Your task to perform on an android device: Go to settings Image 0: 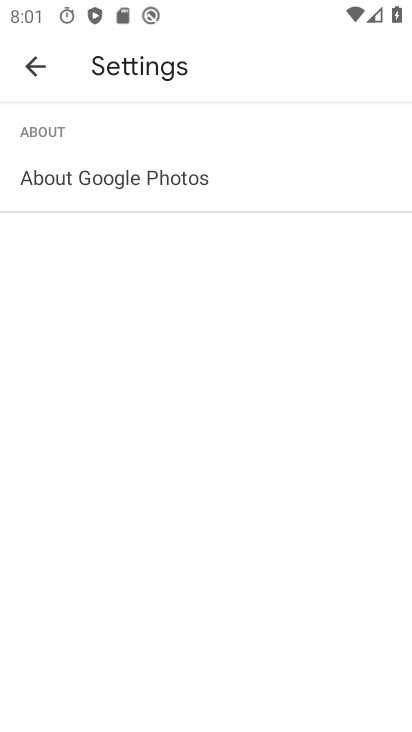
Step 0: press home button
Your task to perform on an android device: Go to settings Image 1: 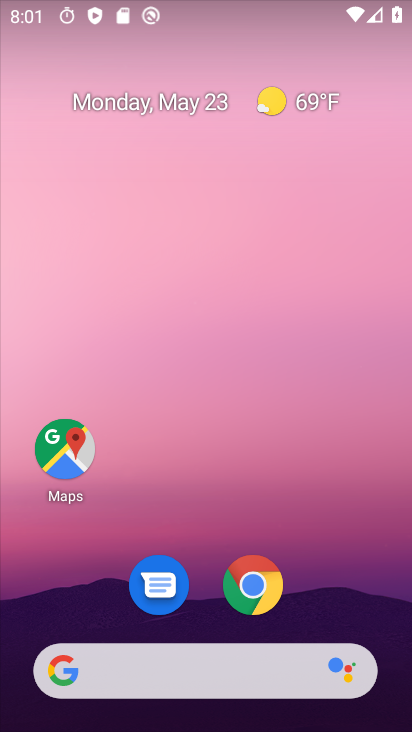
Step 1: drag from (216, 463) to (259, 1)
Your task to perform on an android device: Go to settings Image 2: 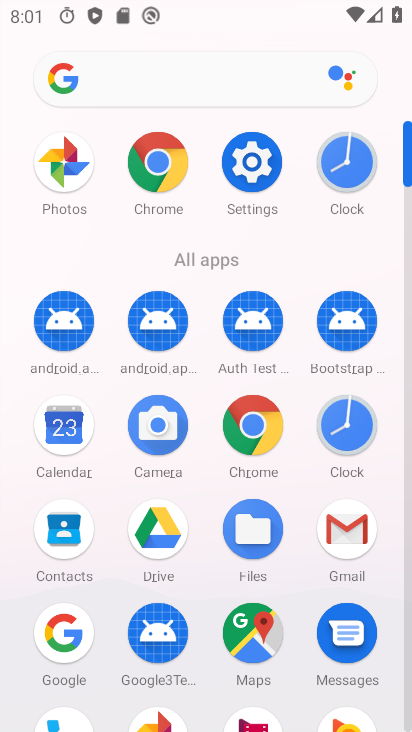
Step 2: click (254, 165)
Your task to perform on an android device: Go to settings Image 3: 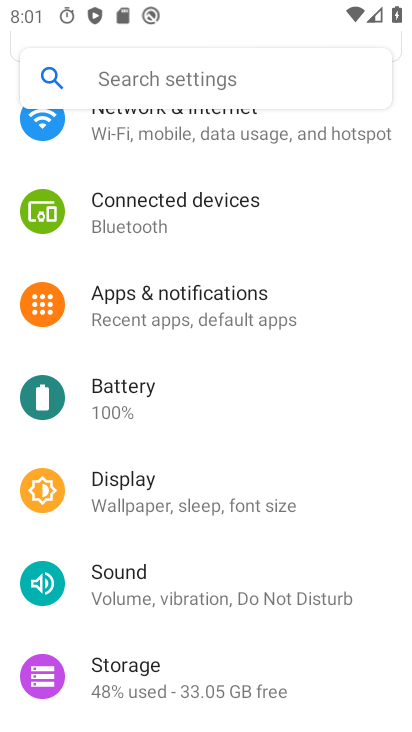
Step 3: task complete